Your task to perform on an android device: Check the news Image 0: 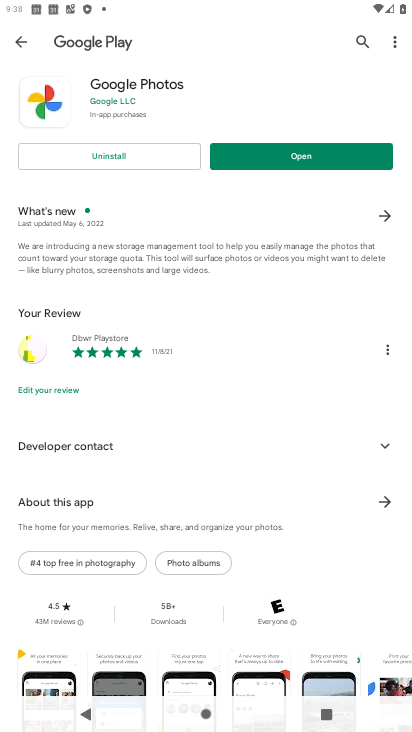
Step 0: press home button
Your task to perform on an android device: Check the news Image 1: 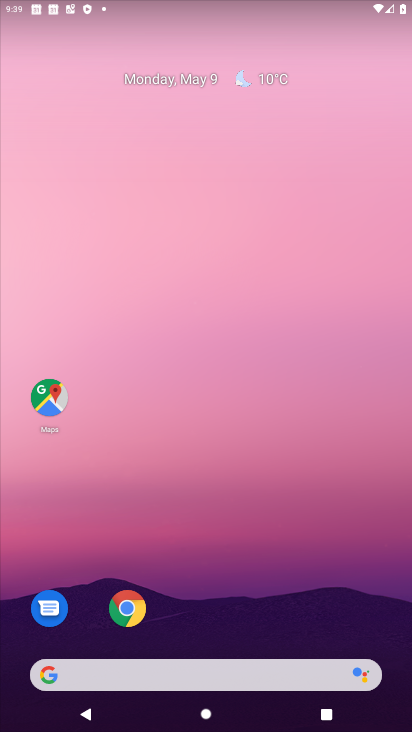
Step 1: drag from (314, 536) to (270, 140)
Your task to perform on an android device: Check the news Image 2: 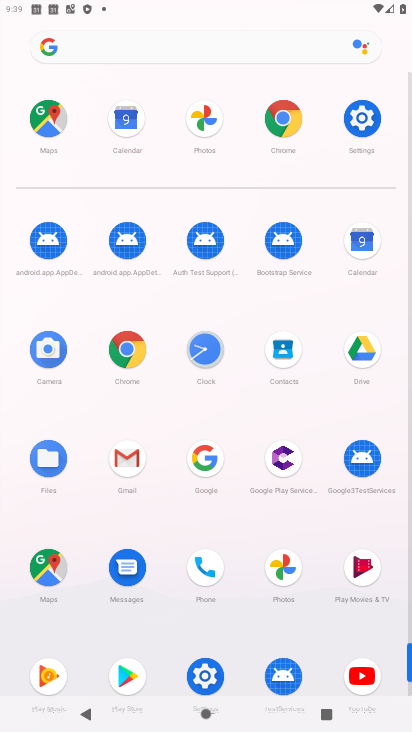
Step 2: click (286, 128)
Your task to perform on an android device: Check the news Image 3: 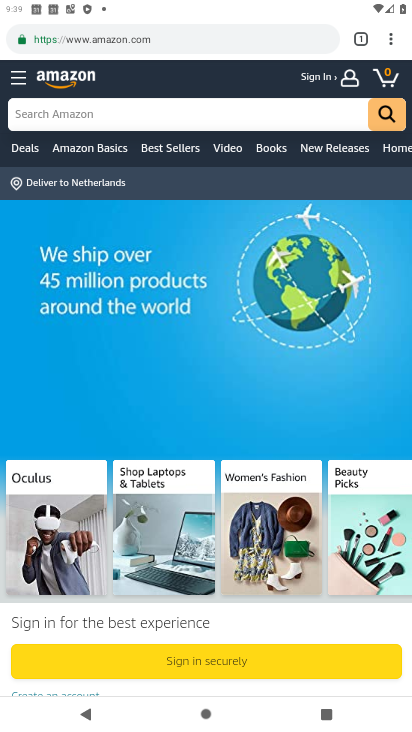
Step 3: drag from (386, 41) to (232, 68)
Your task to perform on an android device: Check the news Image 4: 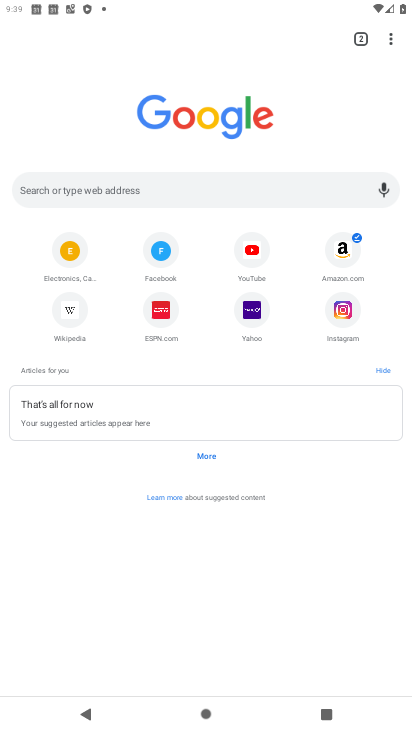
Step 4: click (205, 468)
Your task to perform on an android device: Check the news Image 5: 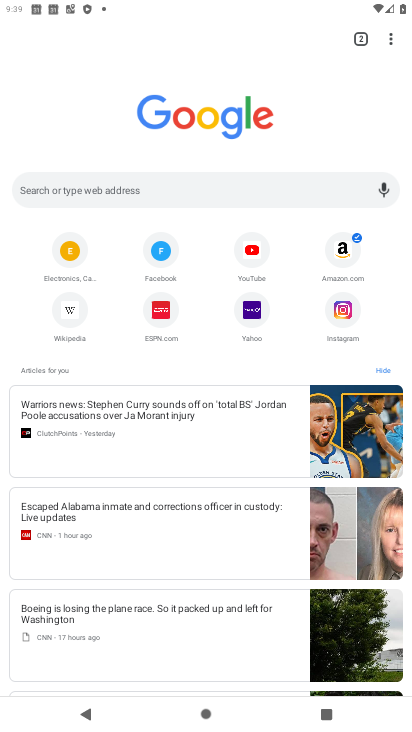
Step 5: task complete